Your task to perform on an android device: Open calendar and show me the third week of next month Image 0: 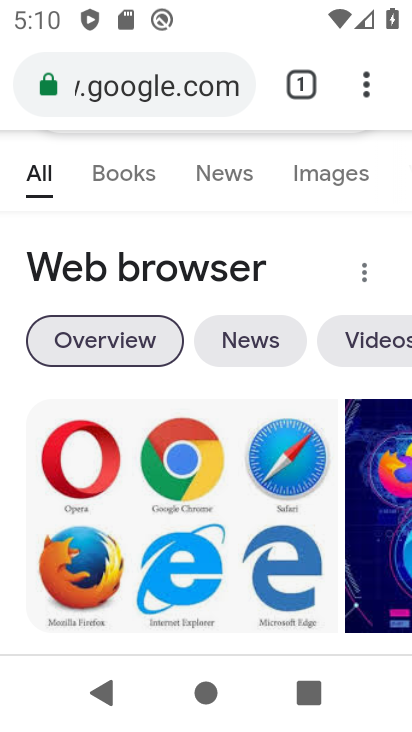
Step 0: press home button
Your task to perform on an android device: Open calendar and show me the third week of next month Image 1: 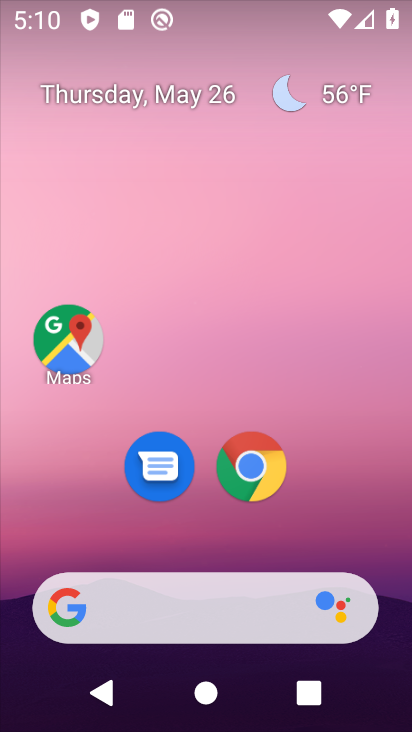
Step 1: drag from (339, 471) to (347, 88)
Your task to perform on an android device: Open calendar and show me the third week of next month Image 2: 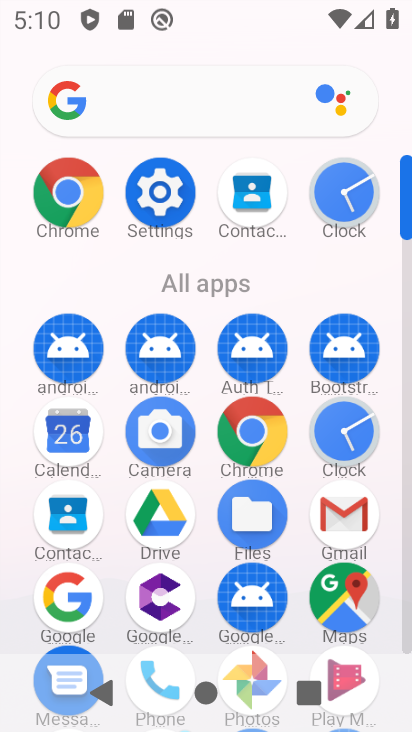
Step 2: click (77, 433)
Your task to perform on an android device: Open calendar and show me the third week of next month Image 3: 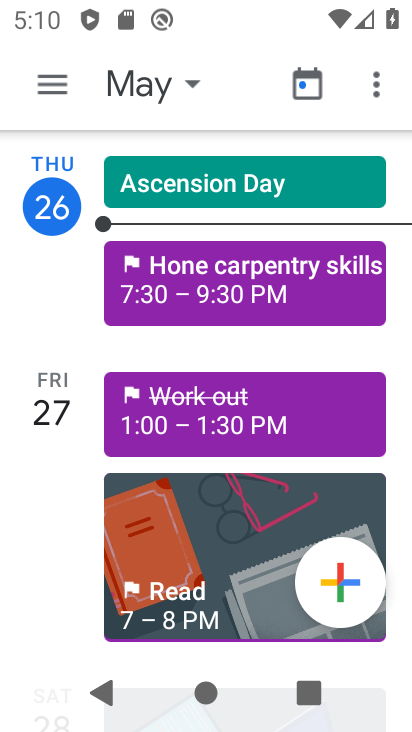
Step 3: click (187, 82)
Your task to perform on an android device: Open calendar and show me the third week of next month Image 4: 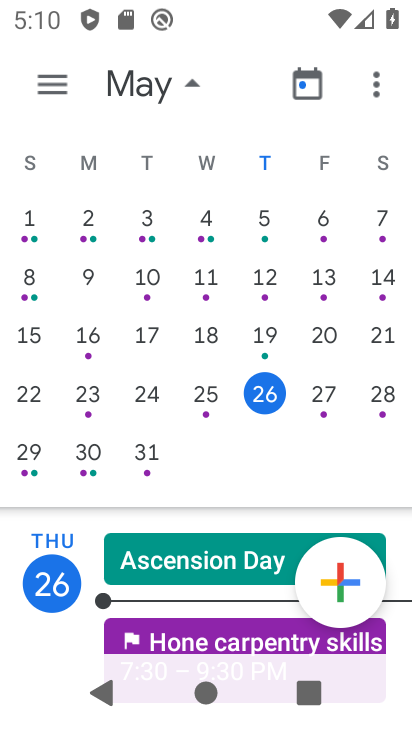
Step 4: drag from (341, 295) to (55, 279)
Your task to perform on an android device: Open calendar and show me the third week of next month Image 5: 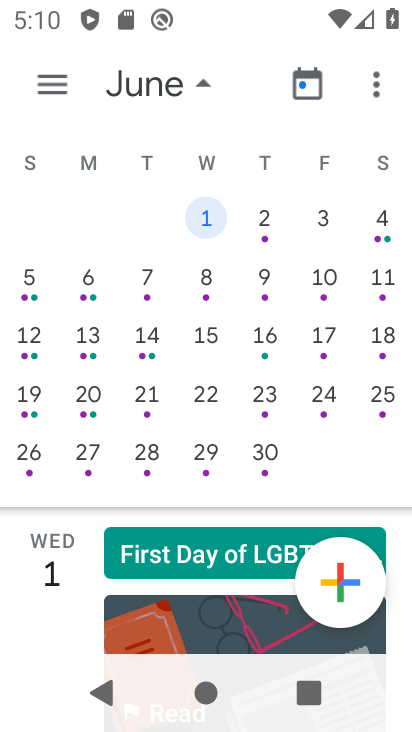
Step 5: click (269, 334)
Your task to perform on an android device: Open calendar and show me the third week of next month Image 6: 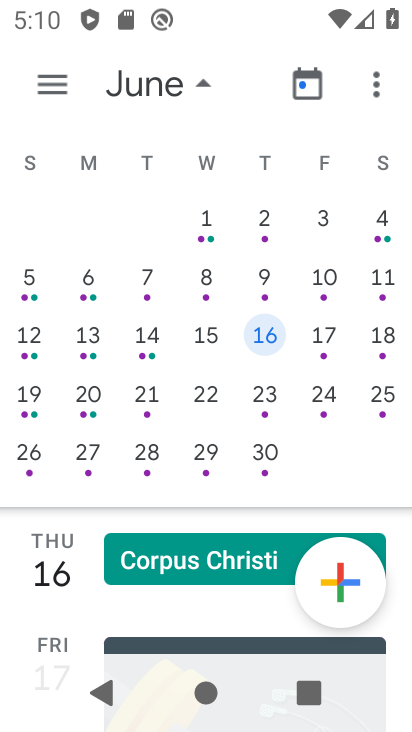
Step 6: task complete